Your task to perform on an android device: change the upload size in google photos Image 0: 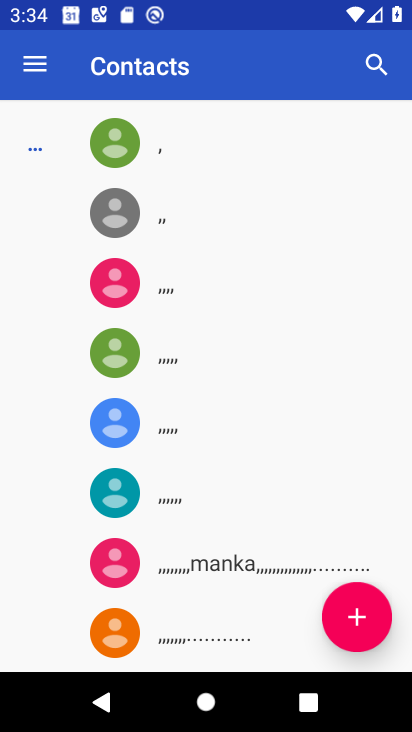
Step 0: press home button
Your task to perform on an android device: change the upload size in google photos Image 1: 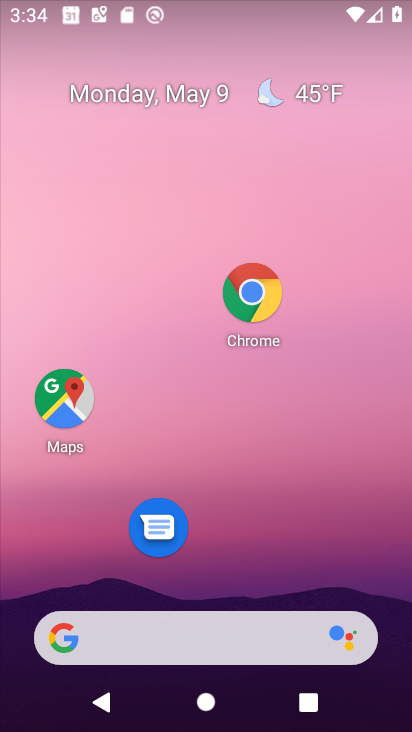
Step 1: drag from (199, 566) to (198, 212)
Your task to perform on an android device: change the upload size in google photos Image 2: 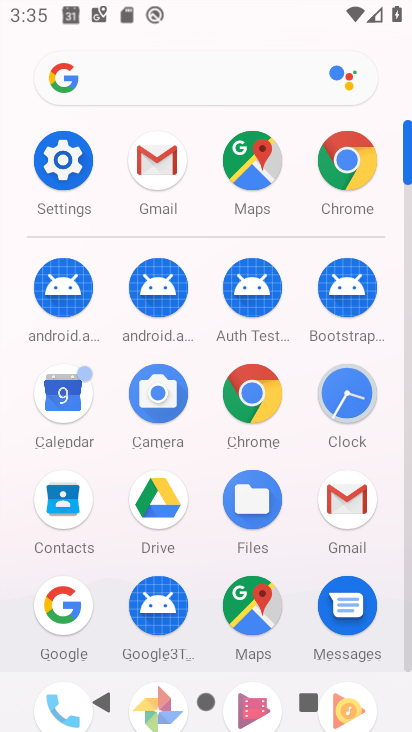
Step 2: drag from (282, 532) to (311, 289)
Your task to perform on an android device: change the upload size in google photos Image 3: 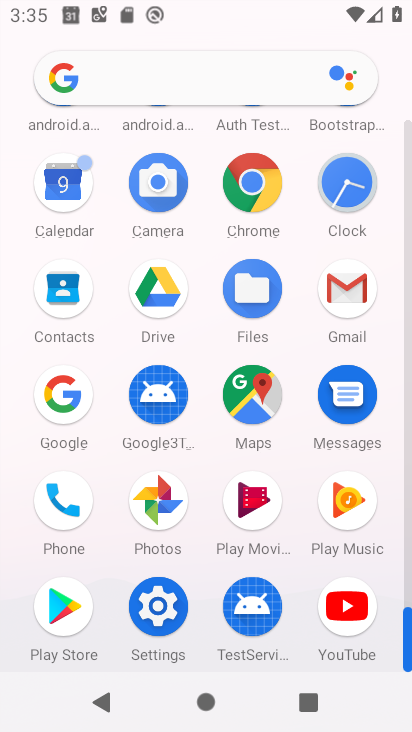
Step 3: click (149, 526)
Your task to perform on an android device: change the upload size in google photos Image 4: 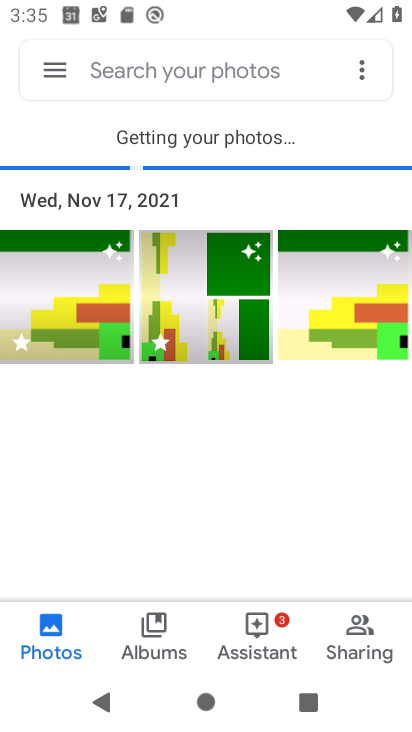
Step 4: click (58, 67)
Your task to perform on an android device: change the upload size in google photos Image 5: 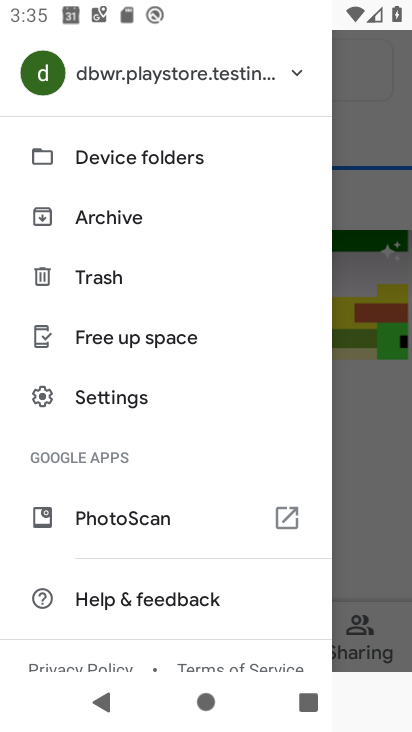
Step 5: click (153, 404)
Your task to perform on an android device: change the upload size in google photos Image 6: 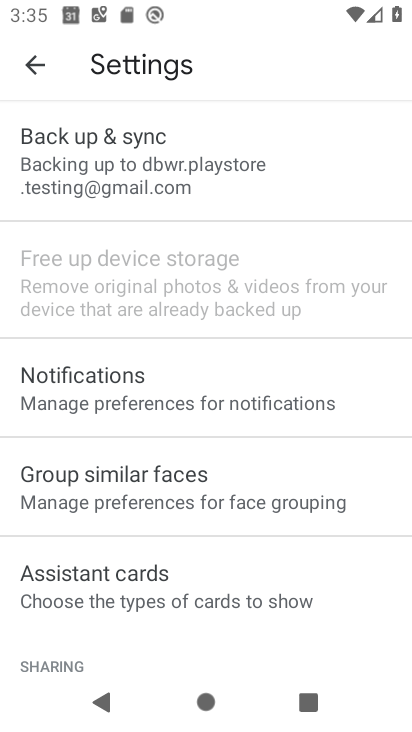
Step 6: click (226, 143)
Your task to perform on an android device: change the upload size in google photos Image 7: 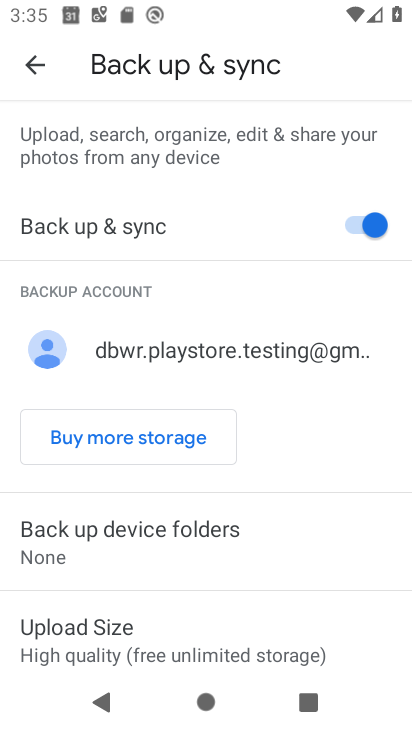
Step 7: drag from (239, 563) to (252, 391)
Your task to perform on an android device: change the upload size in google photos Image 8: 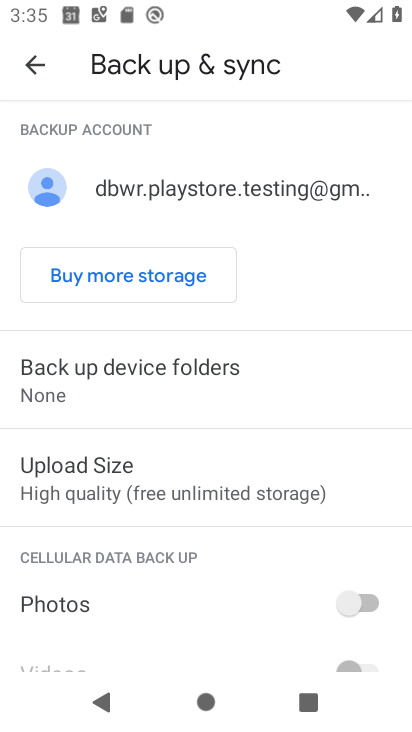
Step 8: click (249, 465)
Your task to perform on an android device: change the upload size in google photos Image 9: 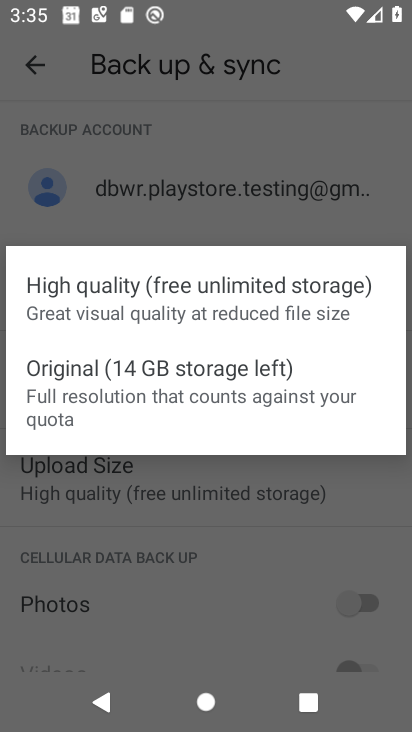
Step 9: click (213, 389)
Your task to perform on an android device: change the upload size in google photos Image 10: 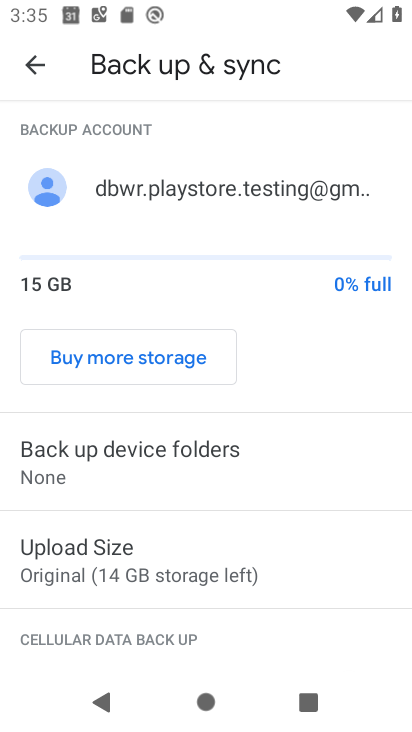
Step 10: task complete